Your task to perform on an android device: change the clock style Image 0: 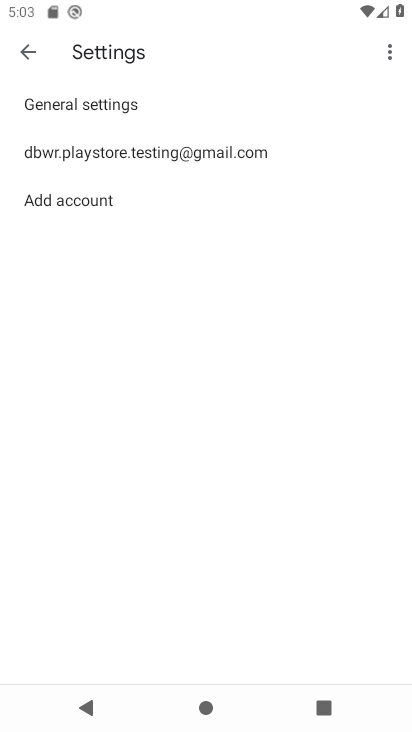
Step 0: press back button
Your task to perform on an android device: change the clock style Image 1: 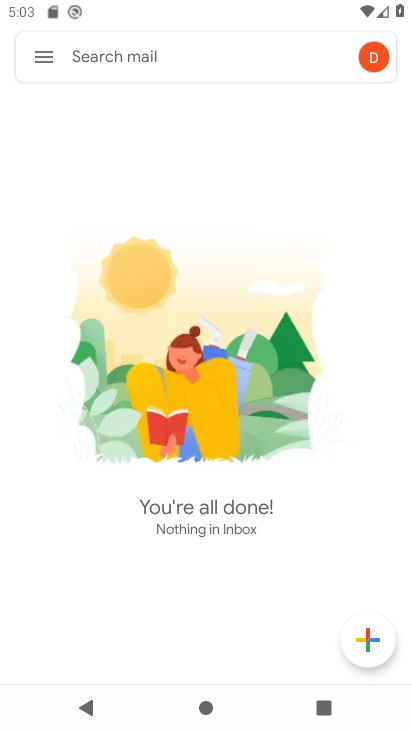
Step 1: press back button
Your task to perform on an android device: change the clock style Image 2: 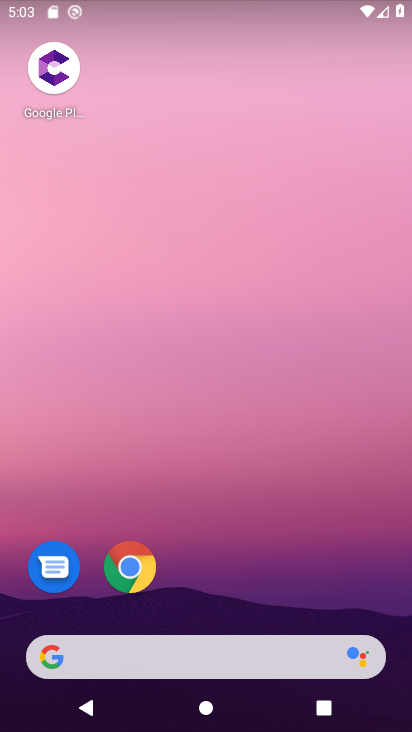
Step 2: drag from (258, 591) to (271, 208)
Your task to perform on an android device: change the clock style Image 3: 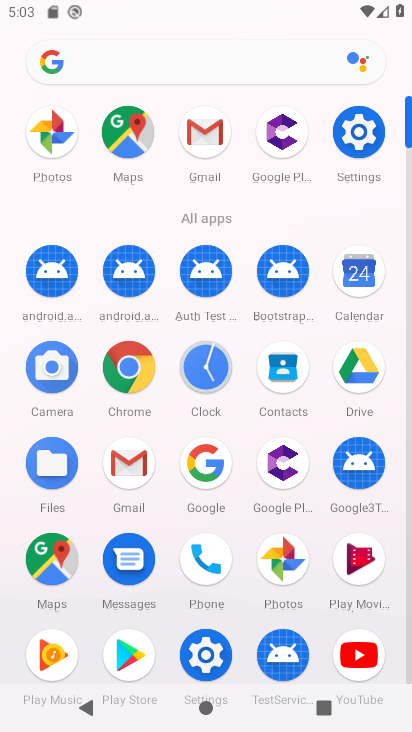
Step 3: click (206, 365)
Your task to perform on an android device: change the clock style Image 4: 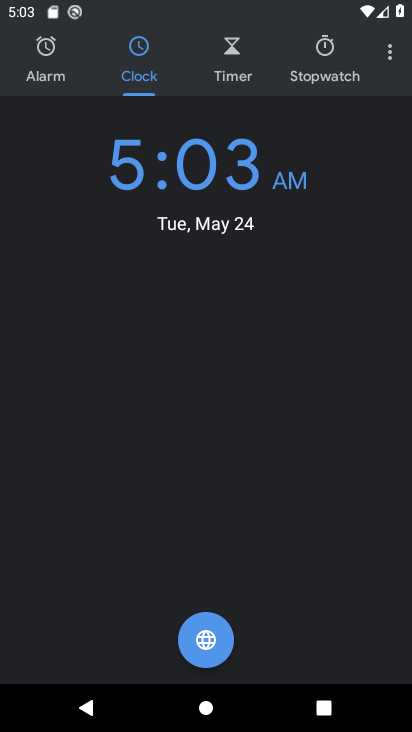
Step 4: click (390, 51)
Your task to perform on an android device: change the clock style Image 5: 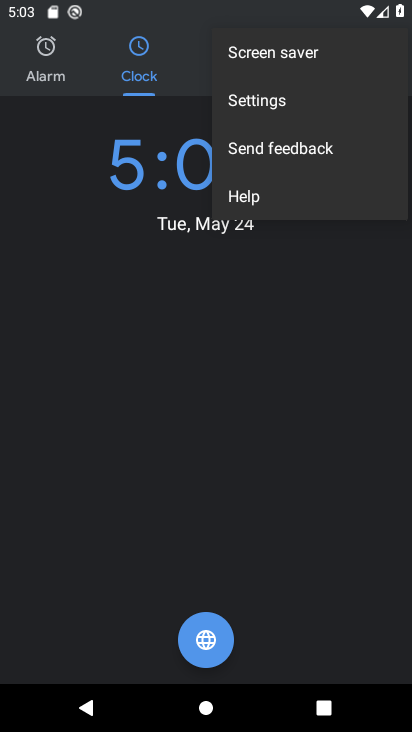
Step 5: click (277, 102)
Your task to perform on an android device: change the clock style Image 6: 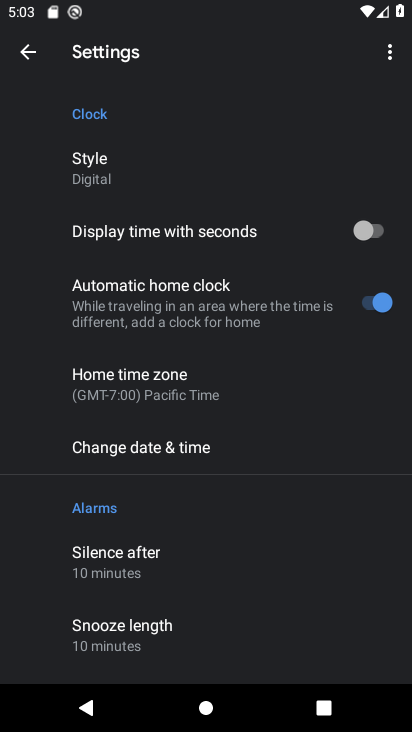
Step 6: click (114, 185)
Your task to perform on an android device: change the clock style Image 7: 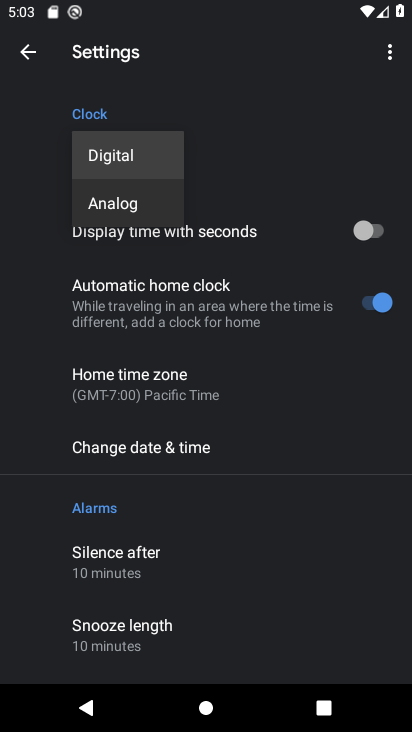
Step 7: click (120, 205)
Your task to perform on an android device: change the clock style Image 8: 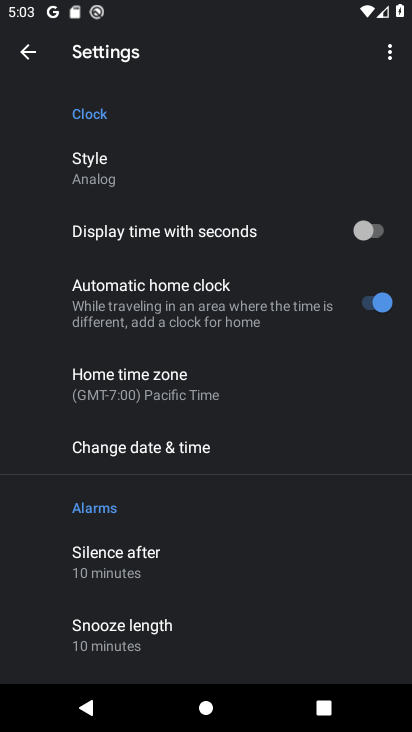
Step 8: task complete